Your task to perform on an android device: Go to eBay Image 0: 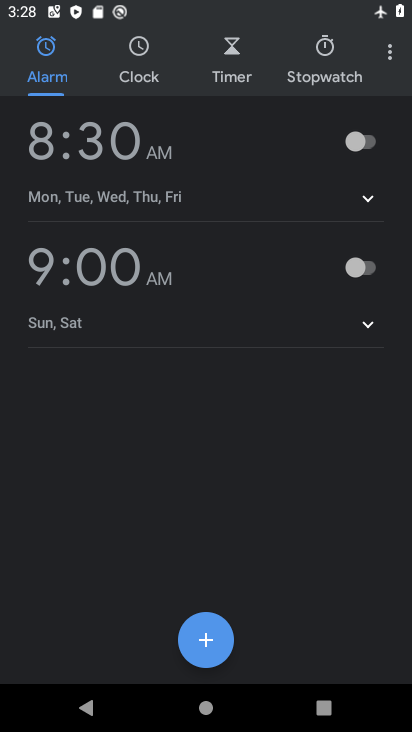
Step 0: press home button
Your task to perform on an android device: Go to eBay Image 1: 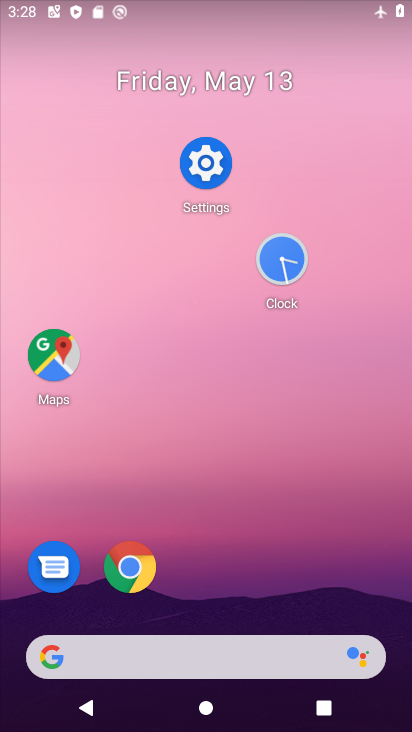
Step 1: click (133, 559)
Your task to perform on an android device: Go to eBay Image 2: 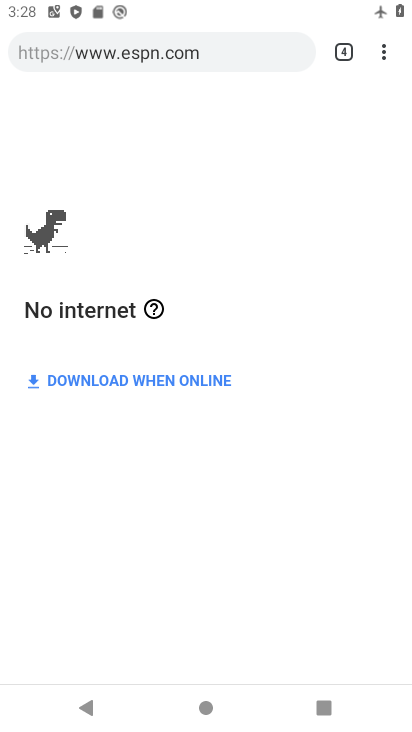
Step 2: task complete